Your task to perform on an android device: Turn off the flashlight Image 0: 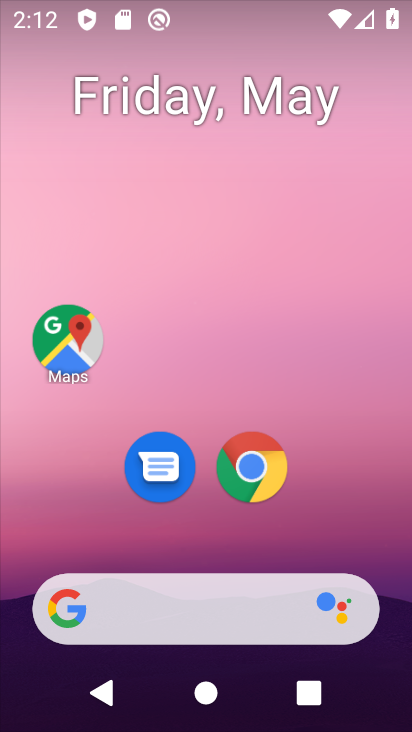
Step 0: drag from (229, 561) to (168, 65)
Your task to perform on an android device: Turn off the flashlight Image 1: 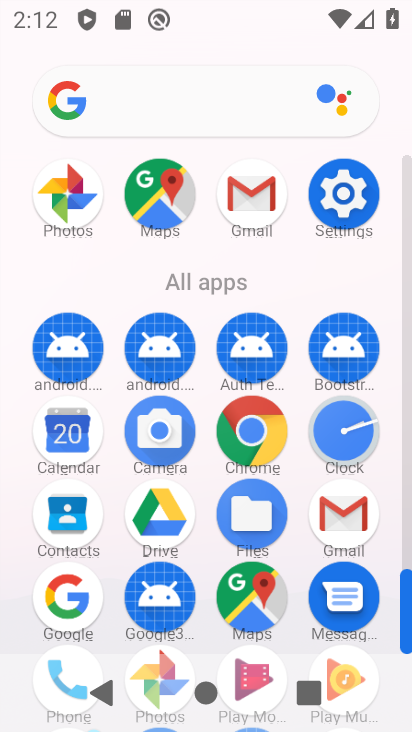
Step 1: click (341, 193)
Your task to perform on an android device: Turn off the flashlight Image 2: 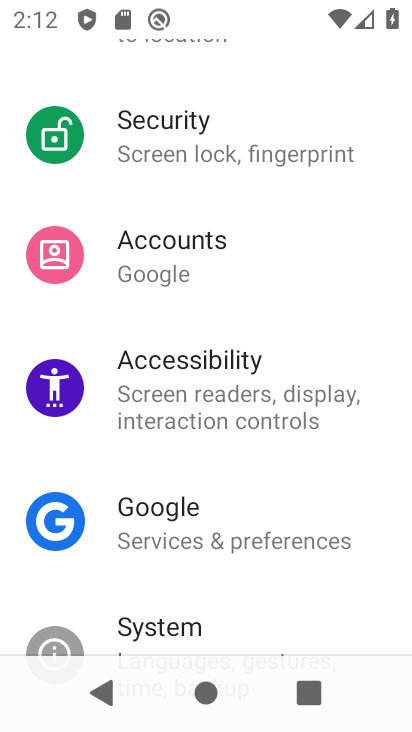
Step 2: task complete